Your task to perform on an android device: turn off javascript in the chrome app Image 0: 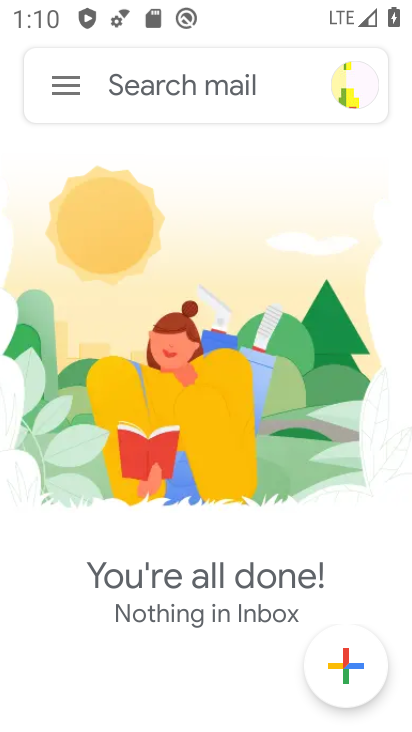
Step 0: press home button
Your task to perform on an android device: turn off javascript in the chrome app Image 1: 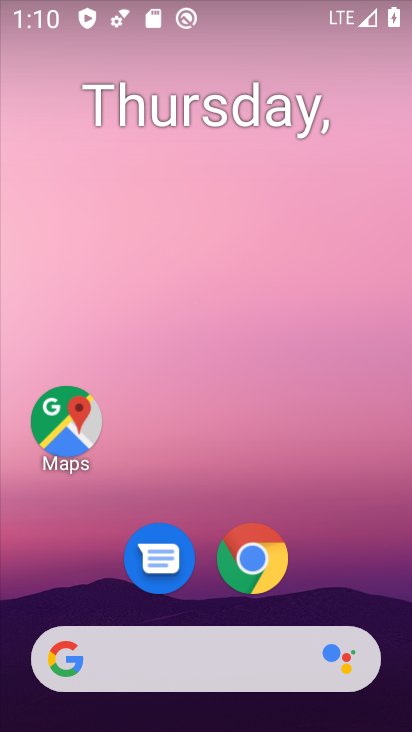
Step 1: click (261, 564)
Your task to perform on an android device: turn off javascript in the chrome app Image 2: 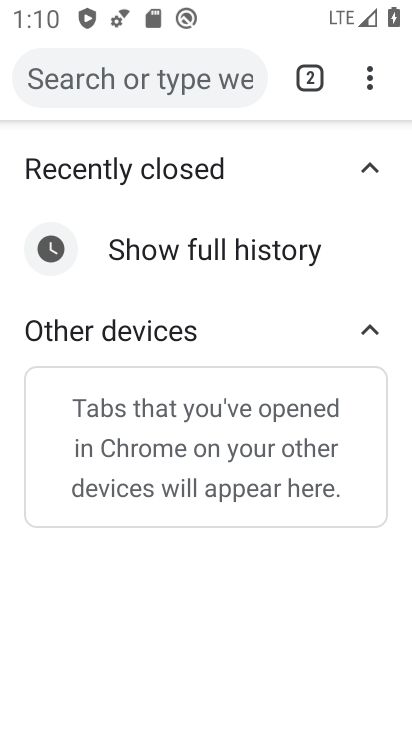
Step 2: drag from (369, 81) to (142, 614)
Your task to perform on an android device: turn off javascript in the chrome app Image 3: 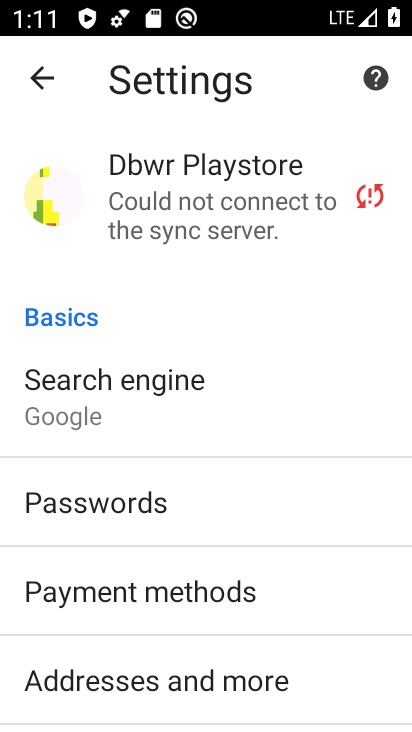
Step 3: drag from (318, 534) to (292, 269)
Your task to perform on an android device: turn off javascript in the chrome app Image 4: 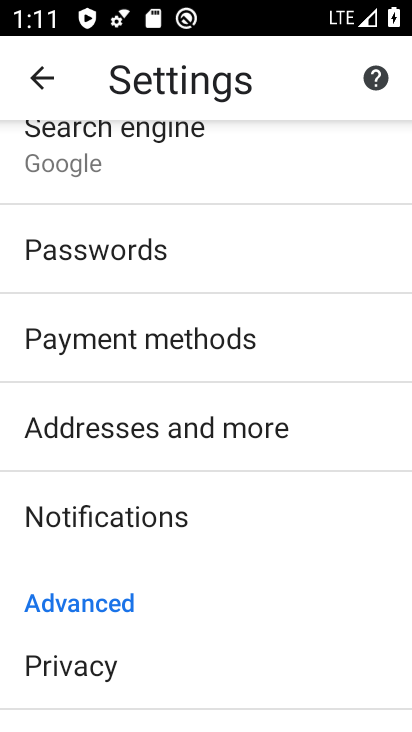
Step 4: drag from (249, 625) to (207, 316)
Your task to perform on an android device: turn off javascript in the chrome app Image 5: 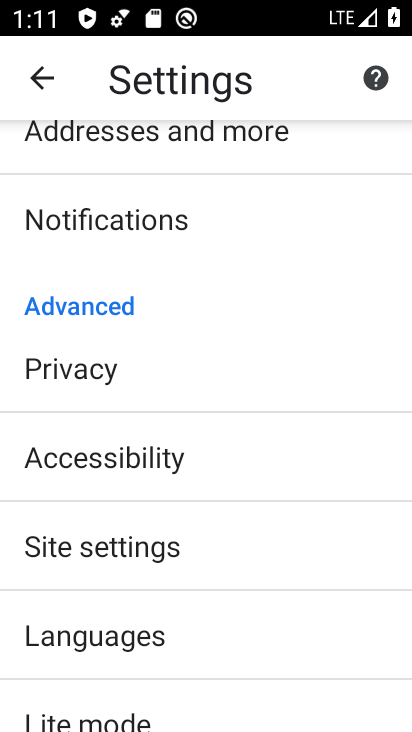
Step 5: click (115, 546)
Your task to perform on an android device: turn off javascript in the chrome app Image 6: 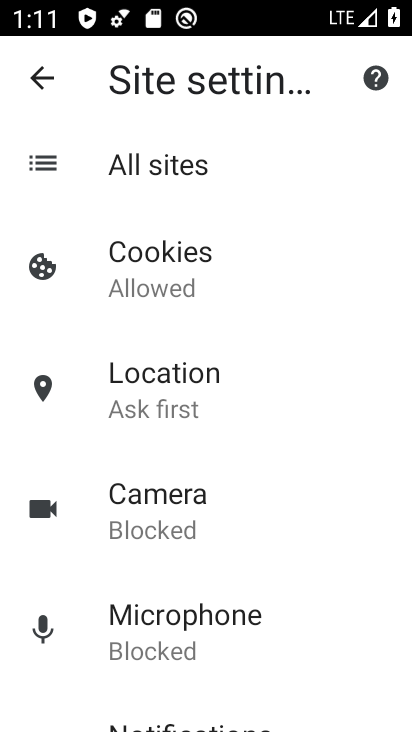
Step 6: drag from (296, 673) to (276, 400)
Your task to perform on an android device: turn off javascript in the chrome app Image 7: 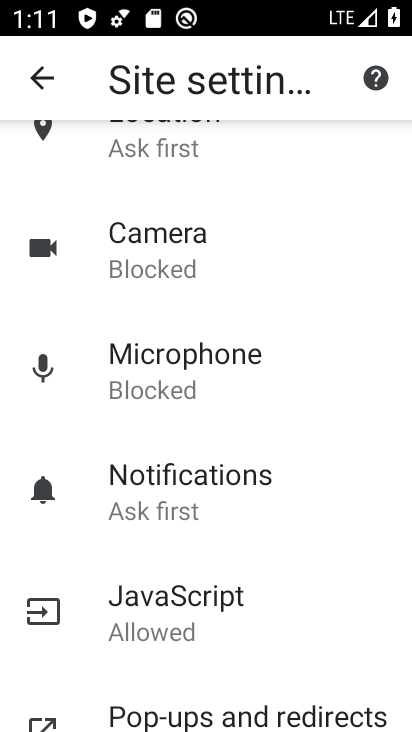
Step 7: click (183, 606)
Your task to perform on an android device: turn off javascript in the chrome app Image 8: 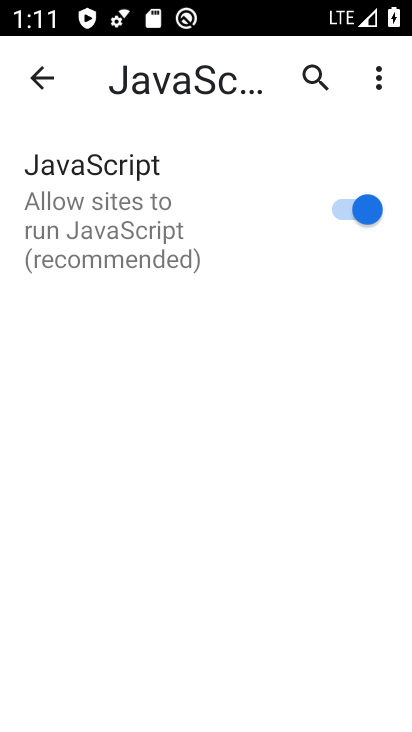
Step 8: click (321, 221)
Your task to perform on an android device: turn off javascript in the chrome app Image 9: 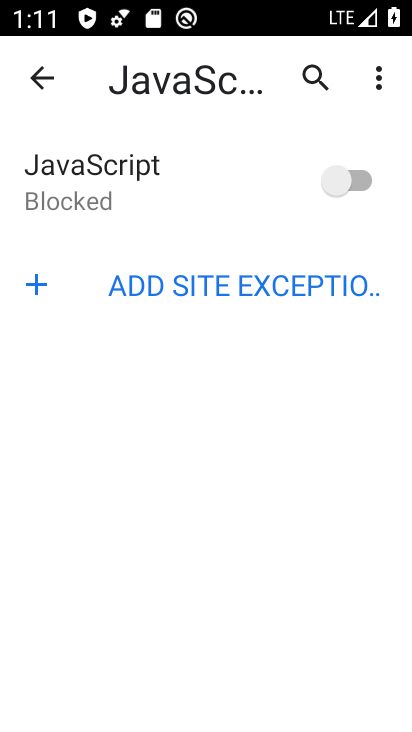
Step 9: task complete